Your task to perform on an android device: turn off sleep mode Image 0: 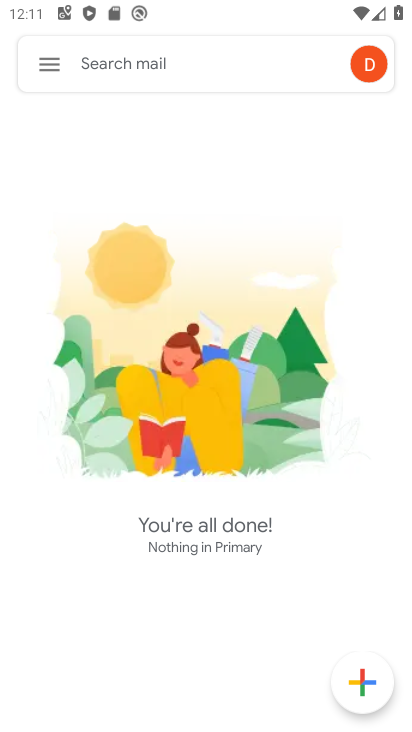
Step 0: press home button
Your task to perform on an android device: turn off sleep mode Image 1: 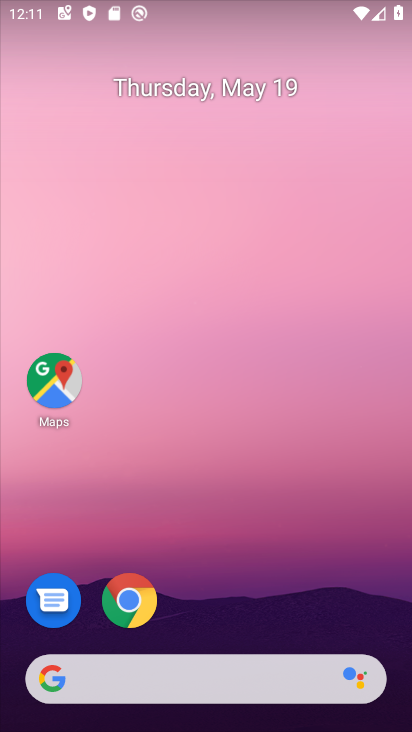
Step 1: drag from (261, 496) to (210, 57)
Your task to perform on an android device: turn off sleep mode Image 2: 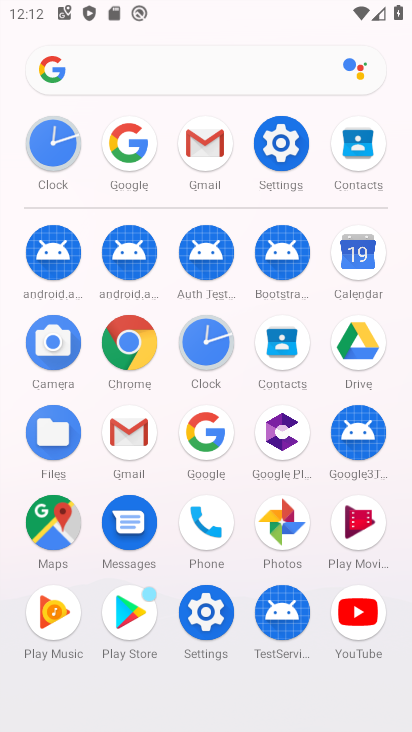
Step 2: click (269, 152)
Your task to perform on an android device: turn off sleep mode Image 3: 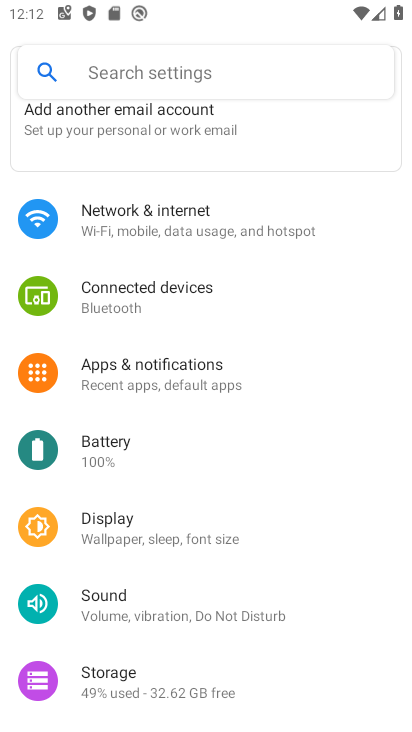
Step 3: click (171, 531)
Your task to perform on an android device: turn off sleep mode Image 4: 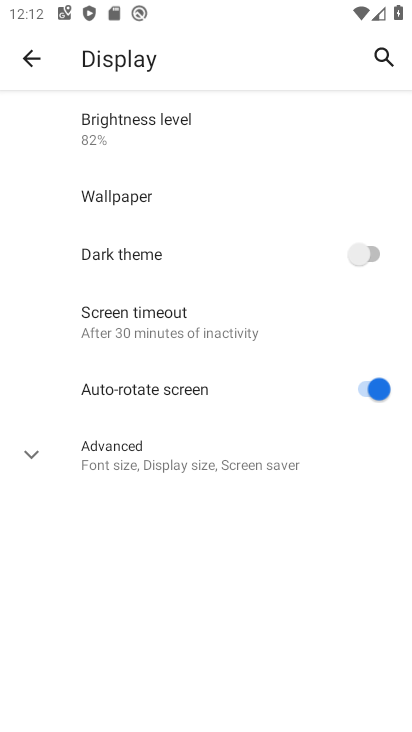
Step 4: task complete